Your task to perform on an android device: Check the news Image 0: 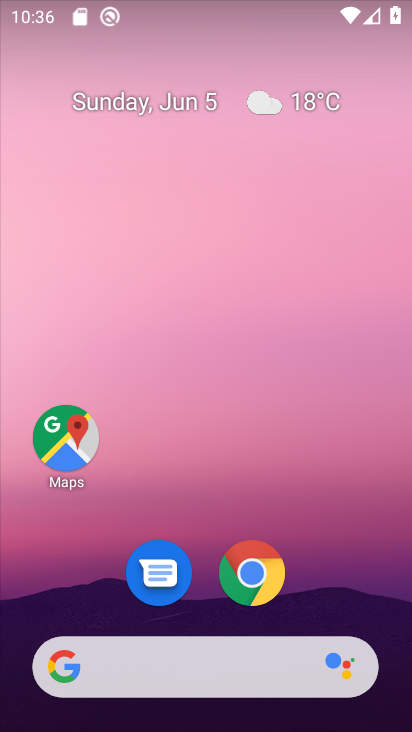
Step 0: click (225, 673)
Your task to perform on an android device: Check the news Image 1: 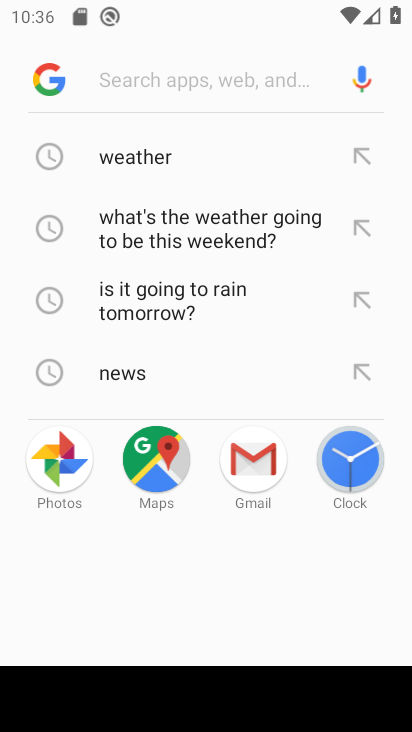
Step 1: type "news"
Your task to perform on an android device: Check the news Image 2: 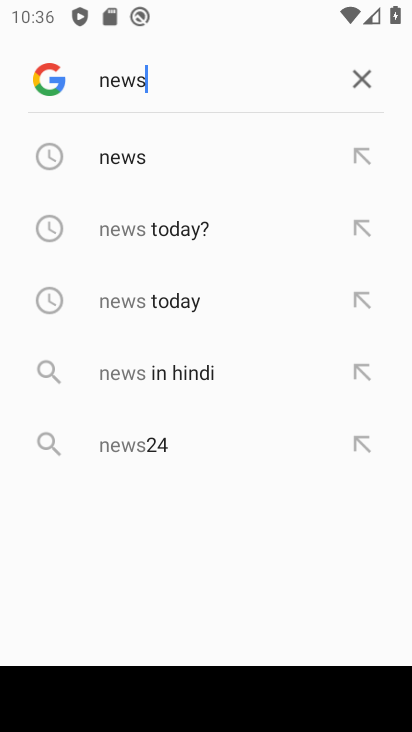
Step 2: click (209, 141)
Your task to perform on an android device: Check the news Image 3: 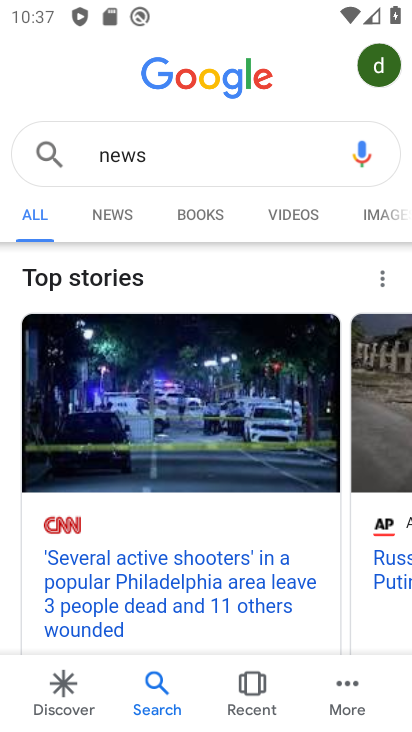
Step 3: click (115, 200)
Your task to perform on an android device: Check the news Image 4: 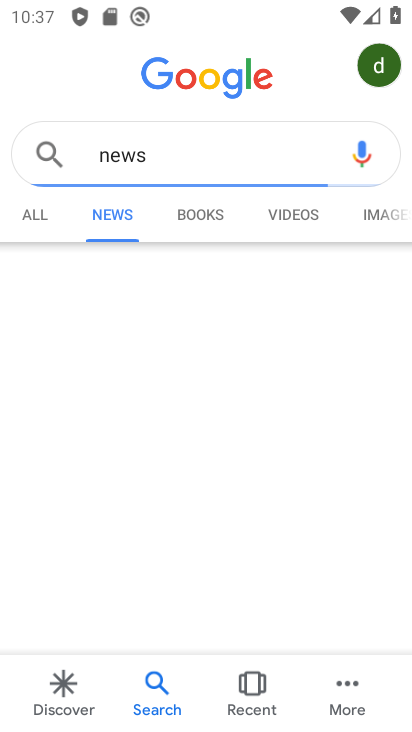
Step 4: task complete